Your task to perform on an android device: Open Google Image 0: 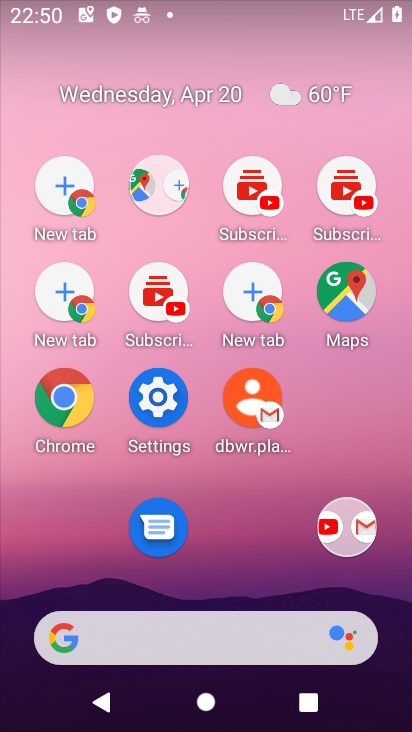
Step 0: drag from (267, 703) to (254, 9)
Your task to perform on an android device: Open Google Image 1: 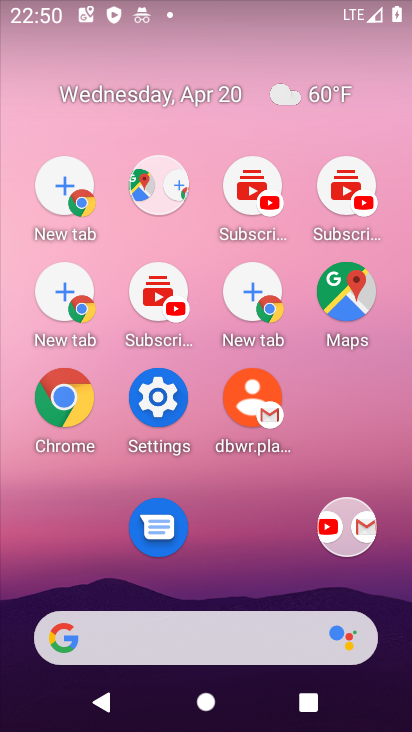
Step 1: drag from (168, 418) to (106, 163)
Your task to perform on an android device: Open Google Image 2: 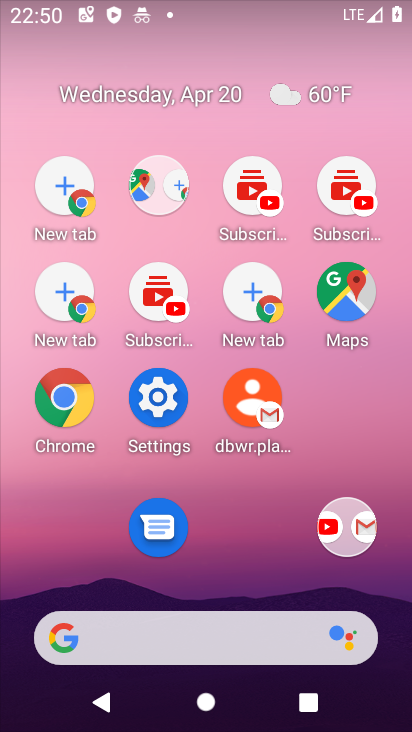
Step 2: drag from (240, 583) to (26, 78)
Your task to perform on an android device: Open Google Image 3: 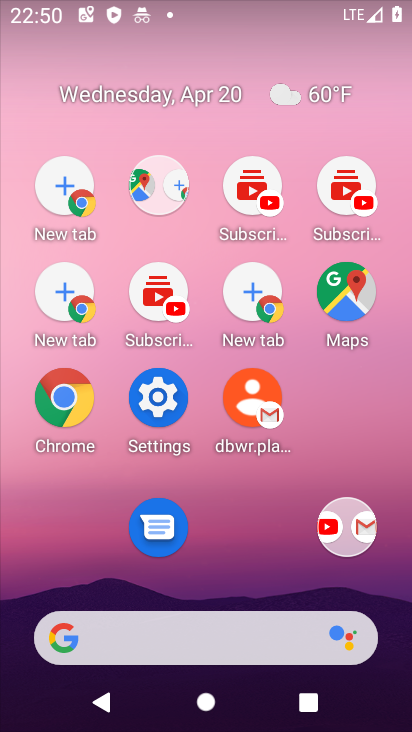
Step 3: drag from (334, 625) to (17, 5)
Your task to perform on an android device: Open Google Image 4: 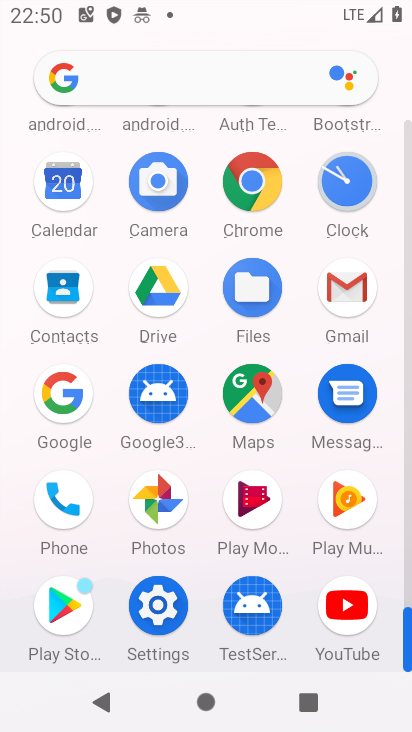
Step 4: click (54, 381)
Your task to perform on an android device: Open Google Image 5: 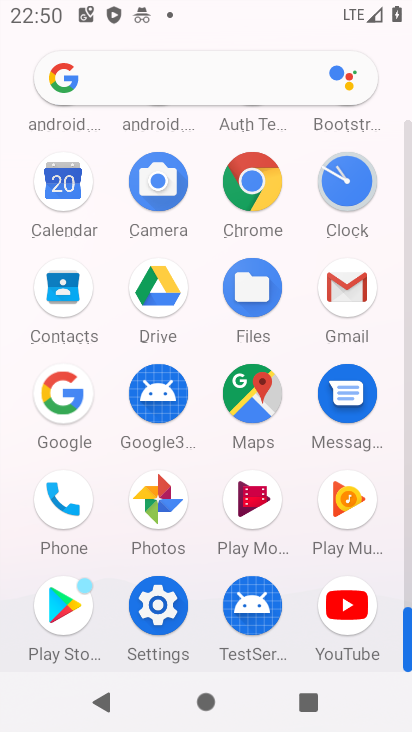
Step 5: click (54, 393)
Your task to perform on an android device: Open Google Image 6: 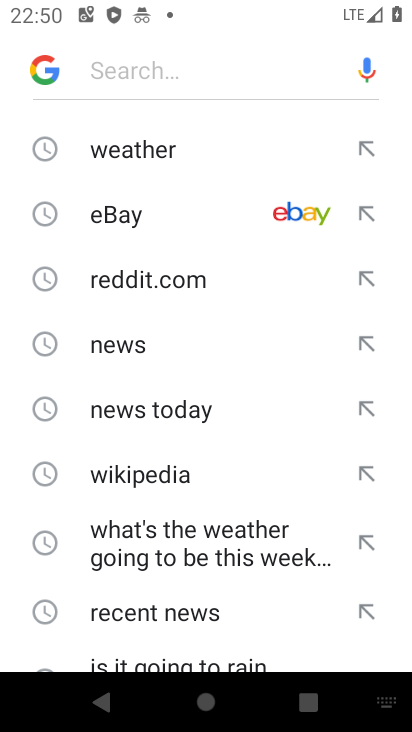
Step 6: click (60, 403)
Your task to perform on an android device: Open Google Image 7: 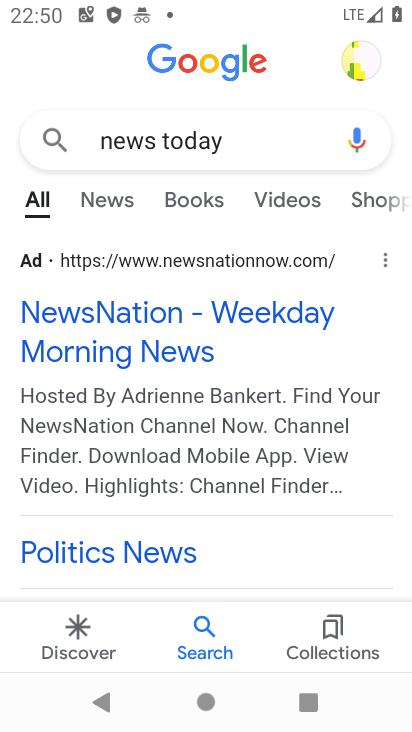
Step 7: task complete